Your task to perform on an android device: Is it going to rain this weekend? Image 0: 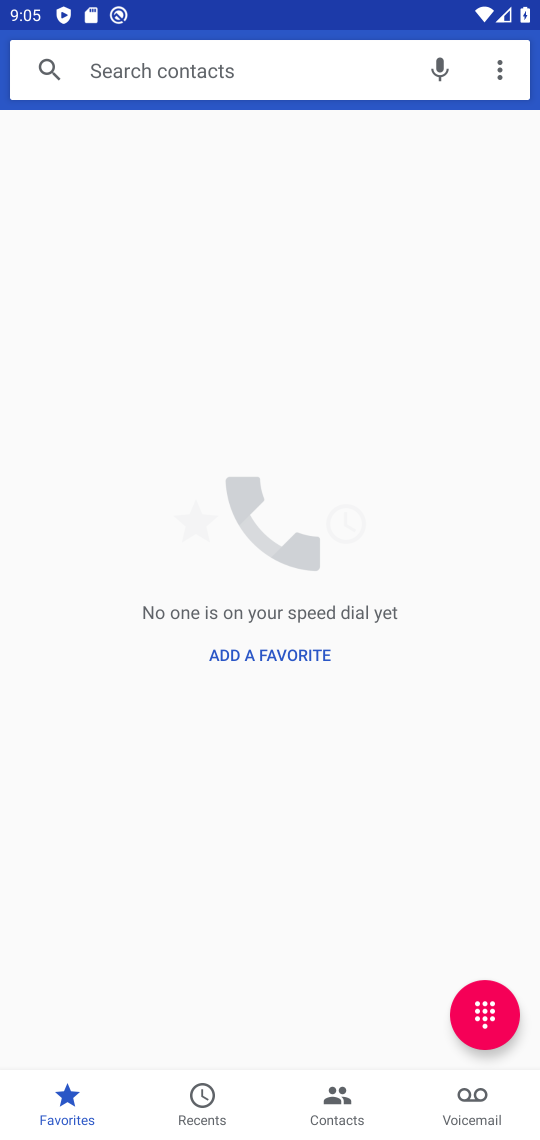
Step 0: press home button
Your task to perform on an android device: Is it going to rain this weekend? Image 1: 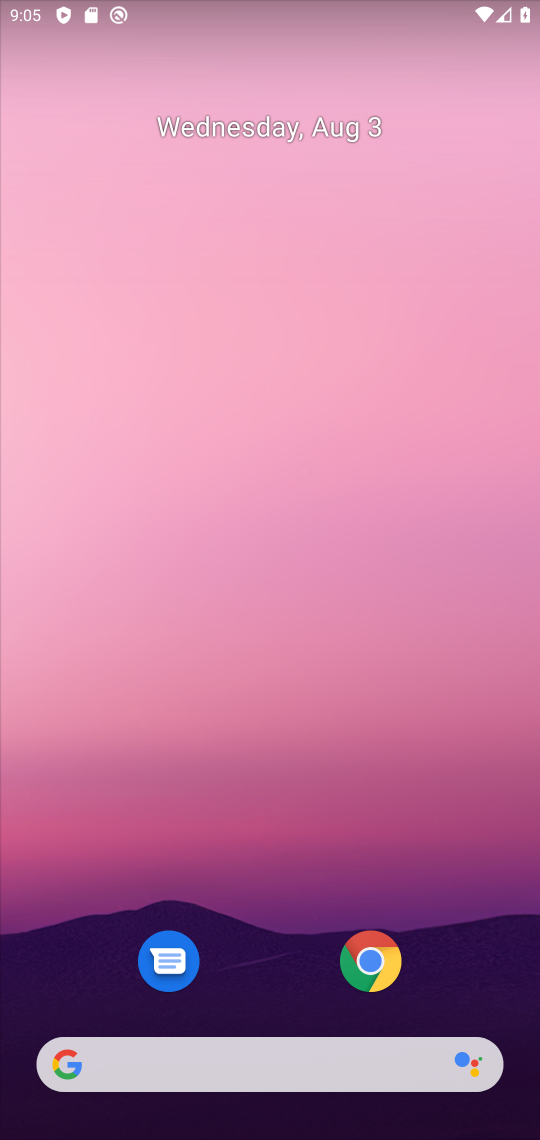
Step 1: drag from (231, 1016) to (239, 10)
Your task to perform on an android device: Is it going to rain this weekend? Image 2: 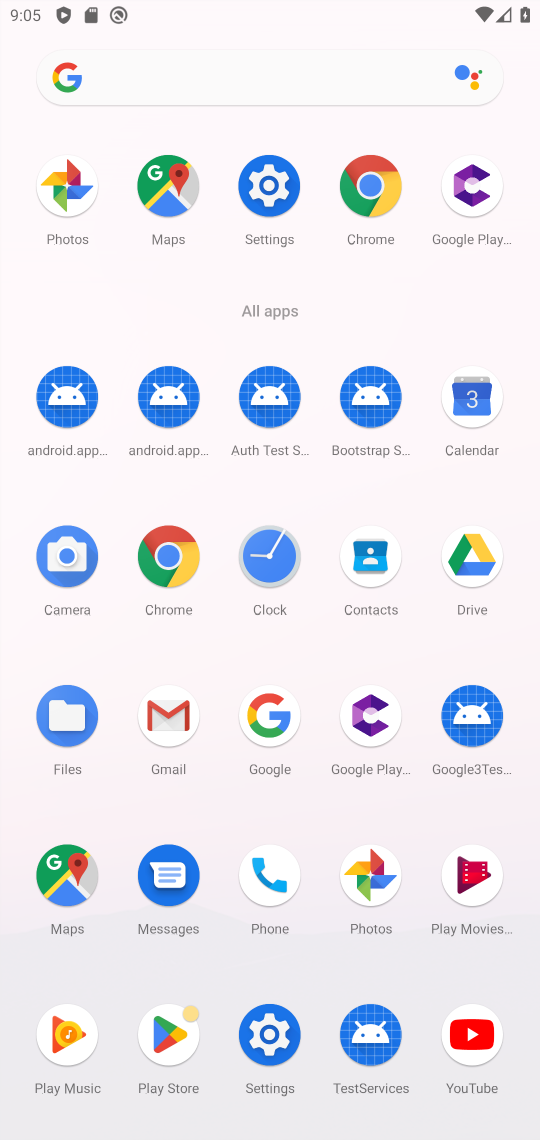
Step 2: click (276, 715)
Your task to perform on an android device: Is it going to rain this weekend? Image 3: 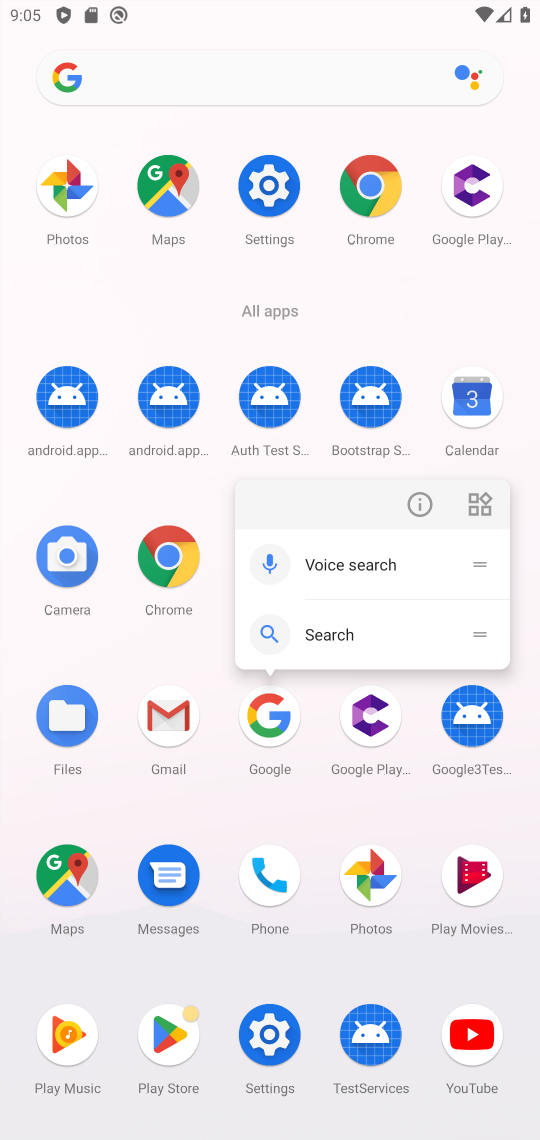
Step 3: click (276, 718)
Your task to perform on an android device: Is it going to rain this weekend? Image 4: 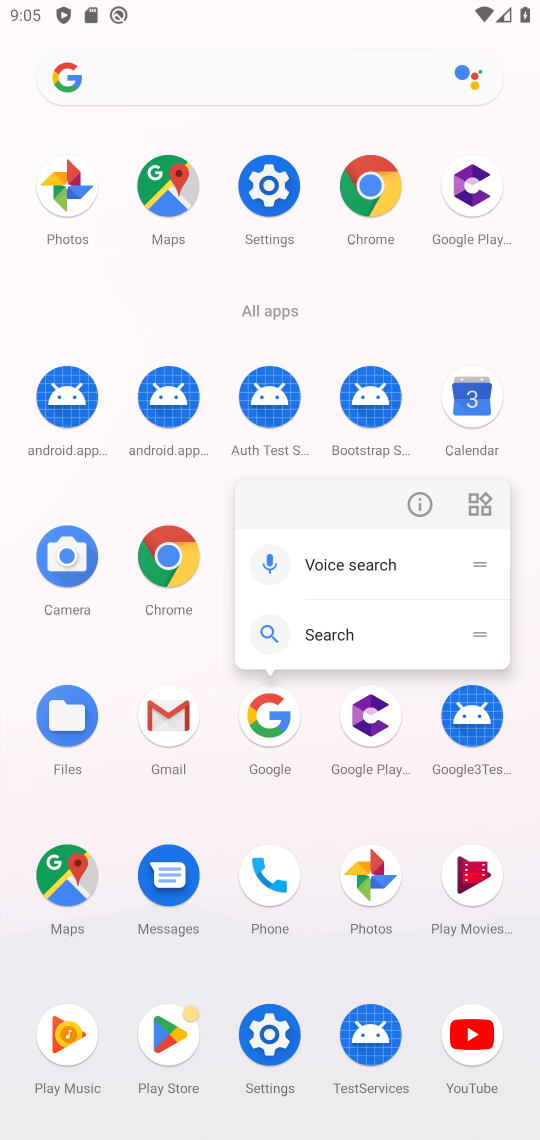
Step 4: click (259, 734)
Your task to perform on an android device: Is it going to rain this weekend? Image 5: 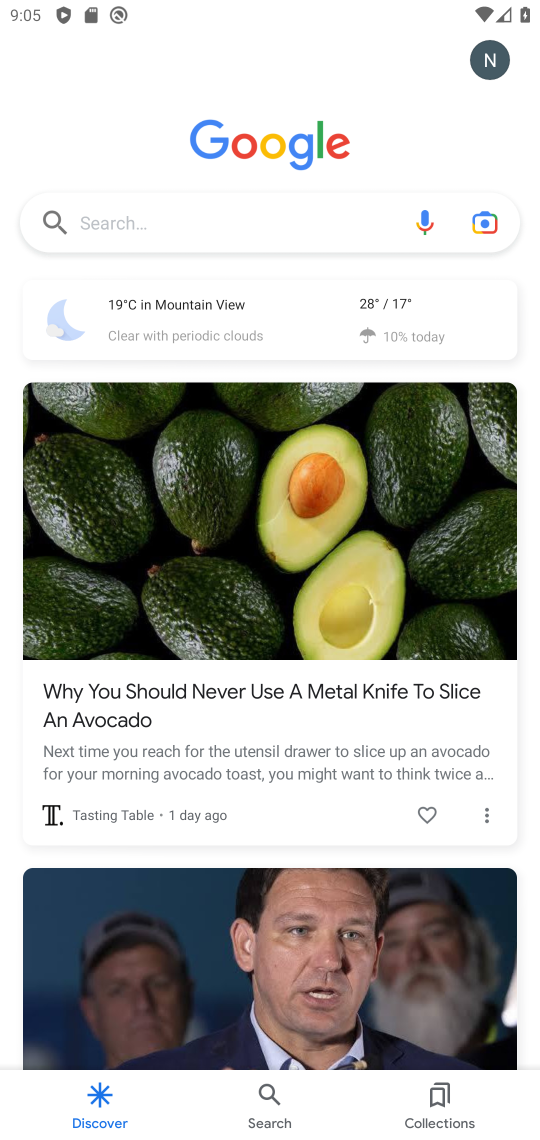
Step 5: click (186, 334)
Your task to perform on an android device: Is it going to rain this weekend? Image 6: 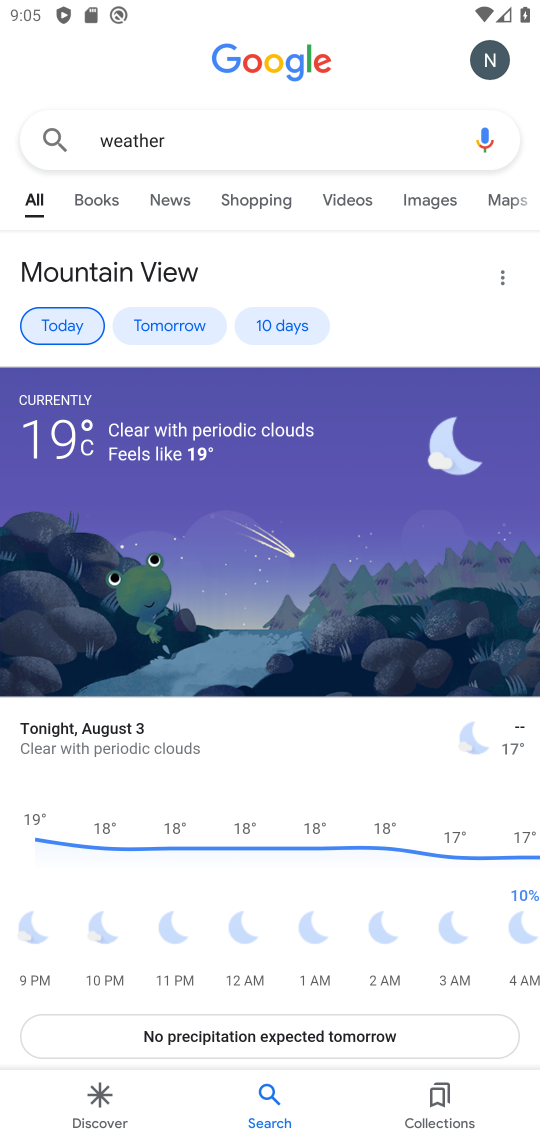
Step 6: click (256, 314)
Your task to perform on an android device: Is it going to rain this weekend? Image 7: 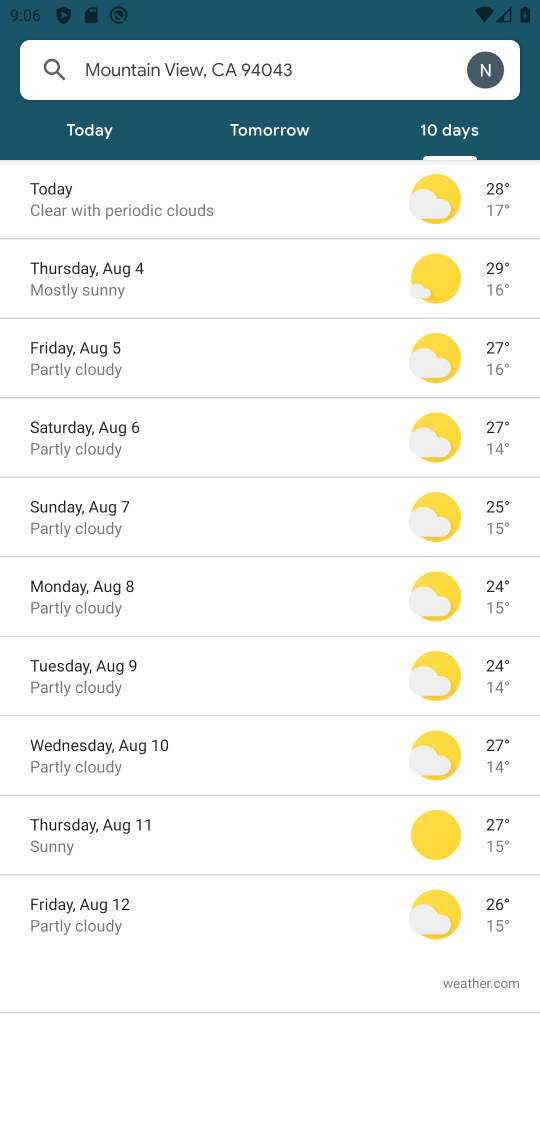
Step 7: task complete